Your task to perform on an android device: Open notification settings Image 0: 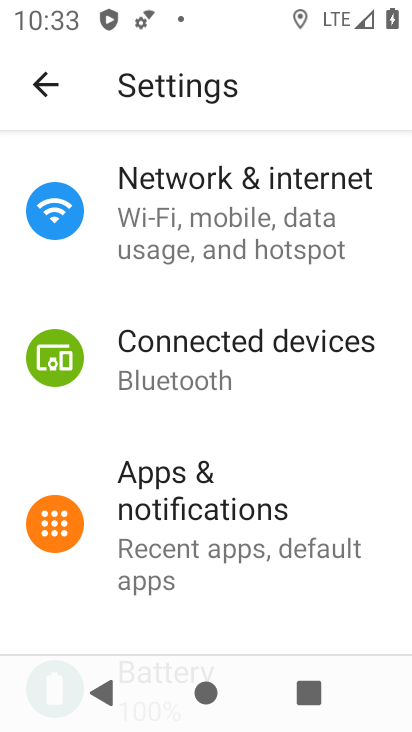
Step 0: press home button
Your task to perform on an android device: Open notification settings Image 1: 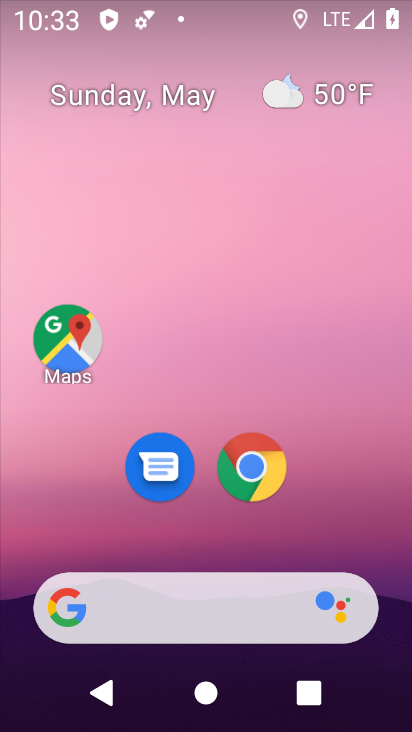
Step 1: drag from (207, 538) to (203, 111)
Your task to perform on an android device: Open notification settings Image 2: 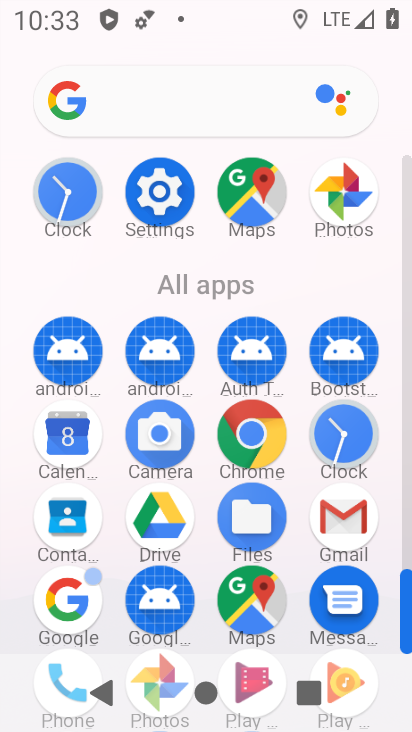
Step 2: click (182, 170)
Your task to perform on an android device: Open notification settings Image 3: 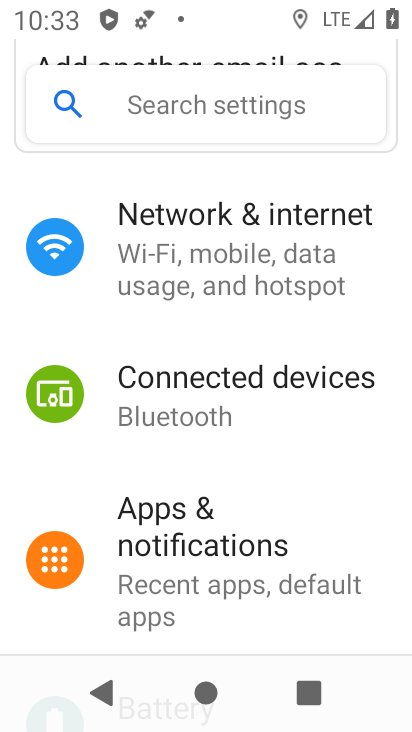
Step 3: click (214, 517)
Your task to perform on an android device: Open notification settings Image 4: 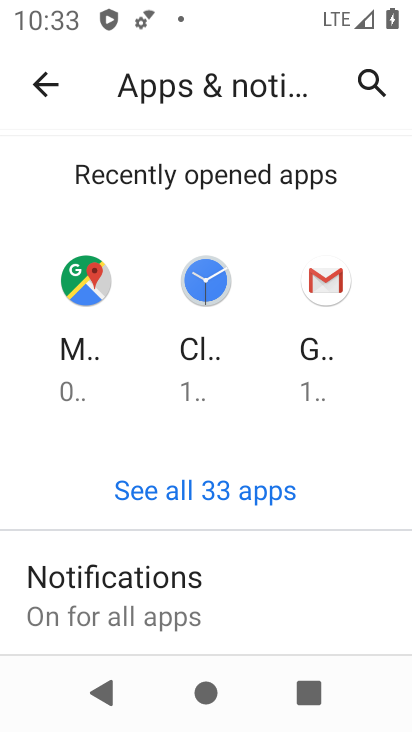
Step 4: click (115, 604)
Your task to perform on an android device: Open notification settings Image 5: 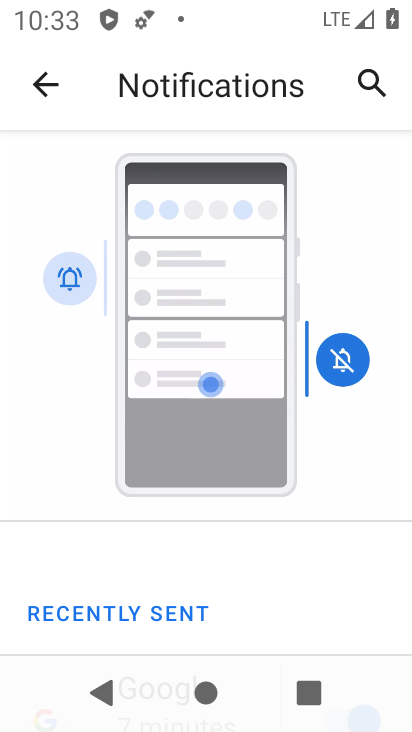
Step 5: task complete